Your task to perform on an android device: turn on javascript in the chrome app Image 0: 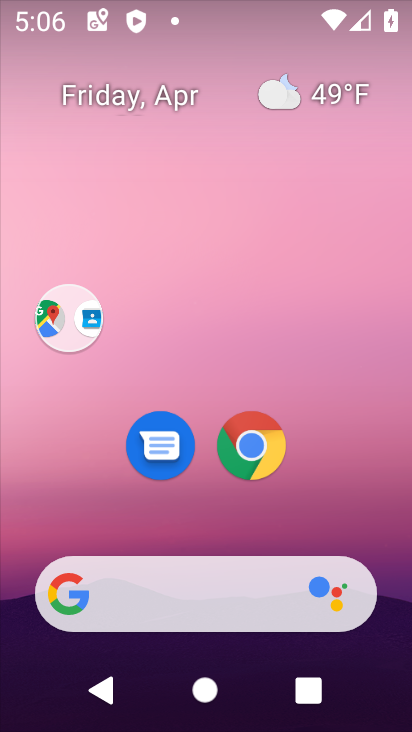
Step 0: drag from (367, 501) to (344, 45)
Your task to perform on an android device: turn on javascript in the chrome app Image 1: 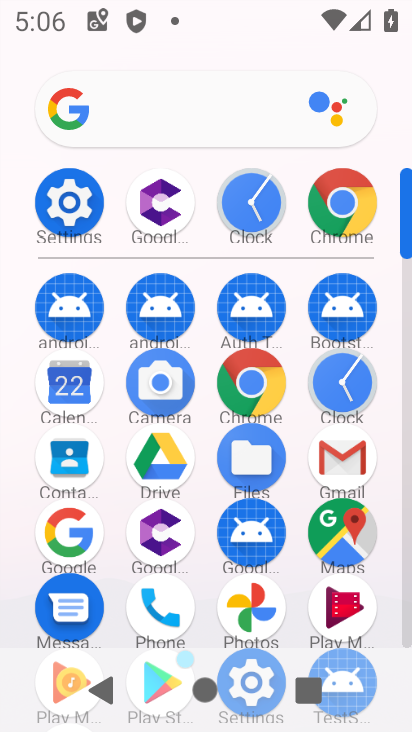
Step 1: click (244, 383)
Your task to perform on an android device: turn on javascript in the chrome app Image 2: 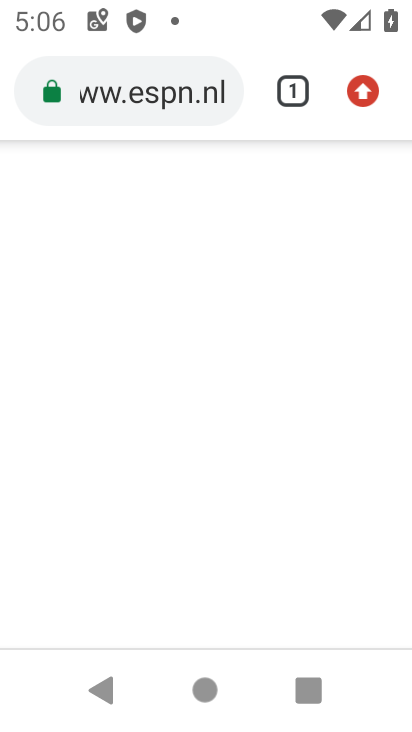
Step 2: drag from (361, 88) to (163, 468)
Your task to perform on an android device: turn on javascript in the chrome app Image 3: 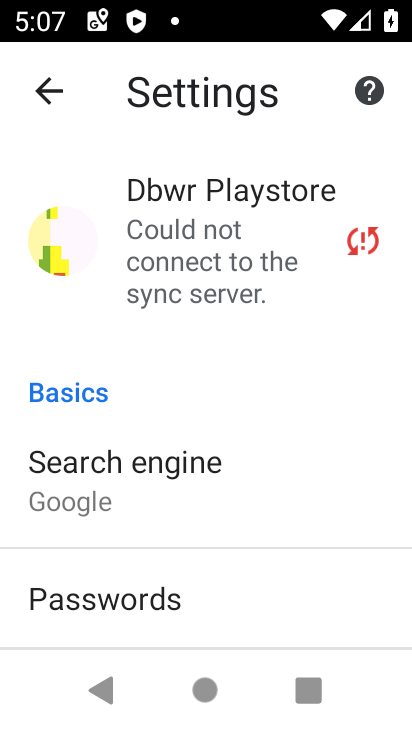
Step 3: drag from (246, 611) to (346, 234)
Your task to perform on an android device: turn on javascript in the chrome app Image 4: 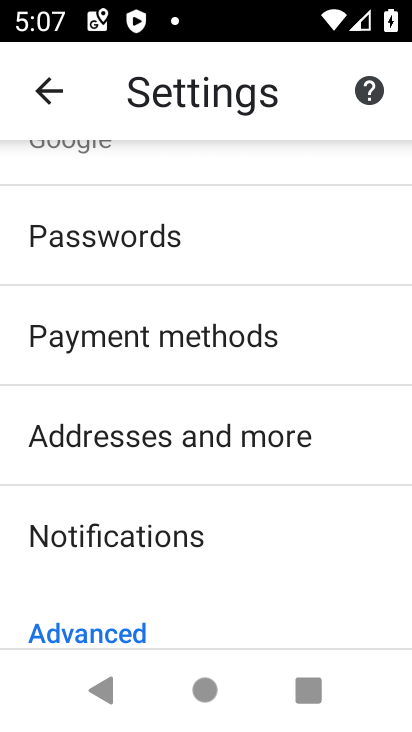
Step 4: drag from (293, 601) to (340, 267)
Your task to perform on an android device: turn on javascript in the chrome app Image 5: 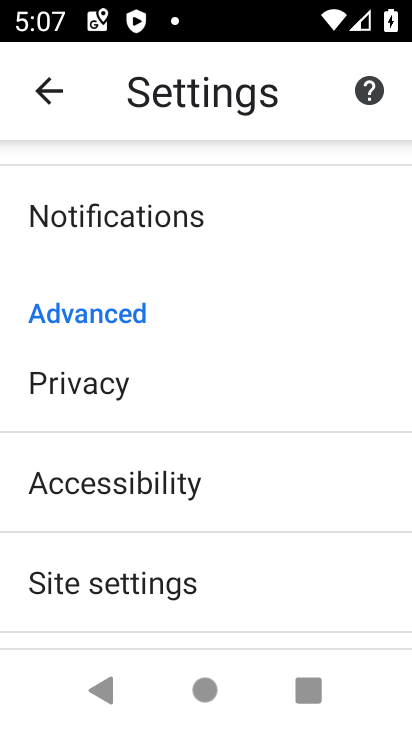
Step 5: drag from (258, 511) to (300, 251)
Your task to perform on an android device: turn on javascript in the chrome app Image 6: 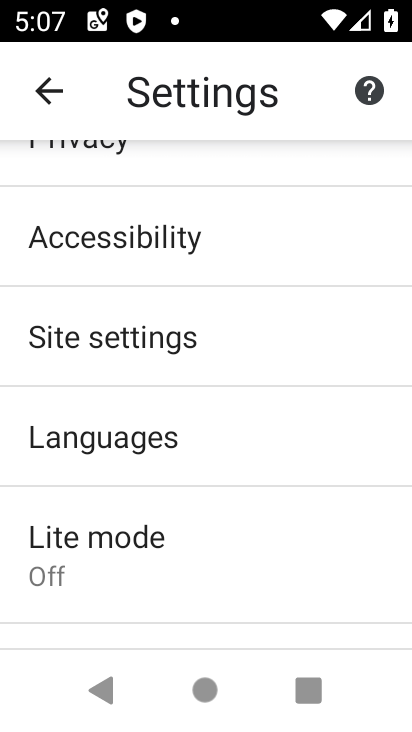
Step 6: drag from (238, 501) to (277, 239)
Your task to perform on an android device: turn on javascript in the chrome app Image 7: 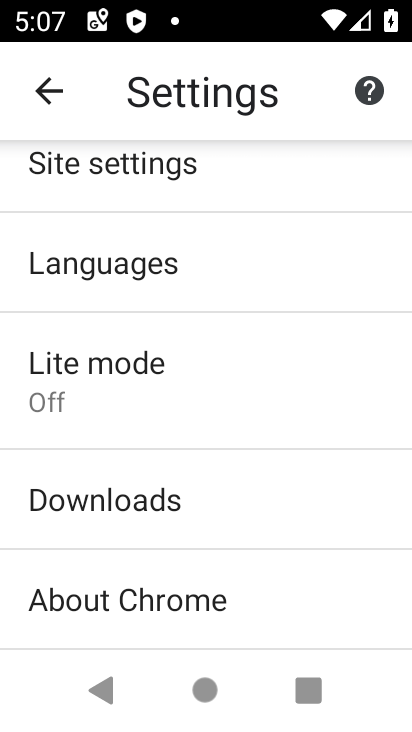
Step 7: click (174, 165)
Your task to perform on an android device: turn on javascript in the chrome app Image 8: 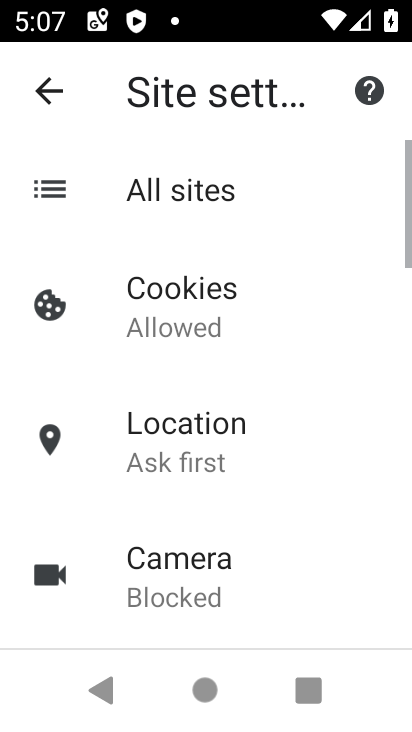
Step 8: drag from (285, 546) to (300, 209)
Your task to perform on an android device: turn on javascript in the chrome app Image 9: 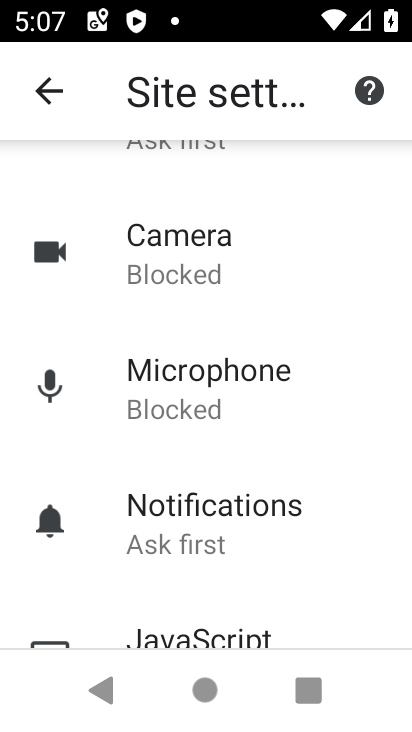
Step 9: drag from (249, 475) to (289, 224)
Your task to perform on an android device: turn on javascript in the chrome app Image 10: 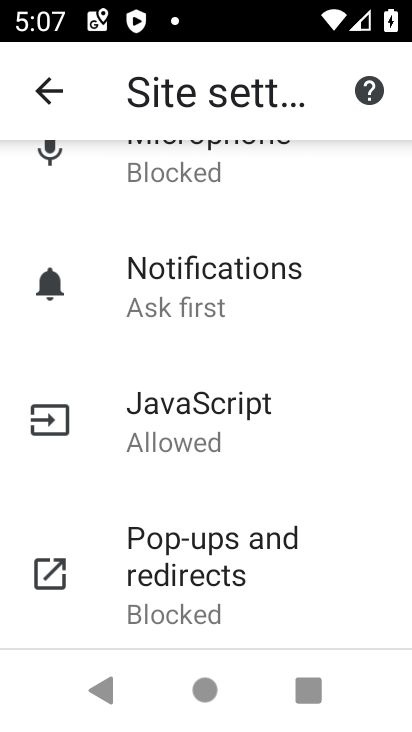
Step 10: click (191, 402)
Your task to perform on an android device: turn on javascript in the chrome app Image 11: 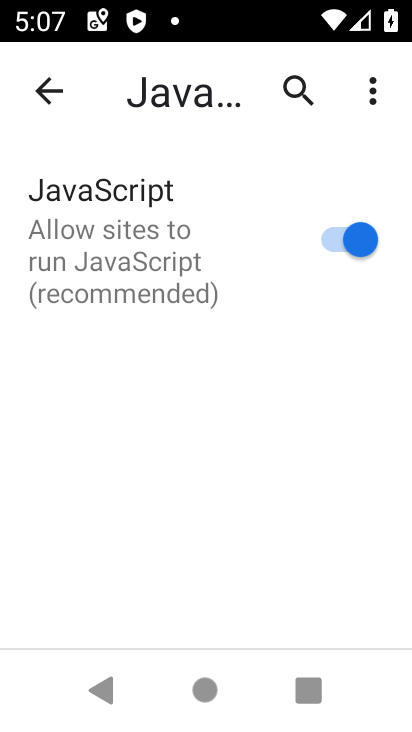
Step 11: task complete